Your task to perform on an android device: Do I have any events today? Image 0: 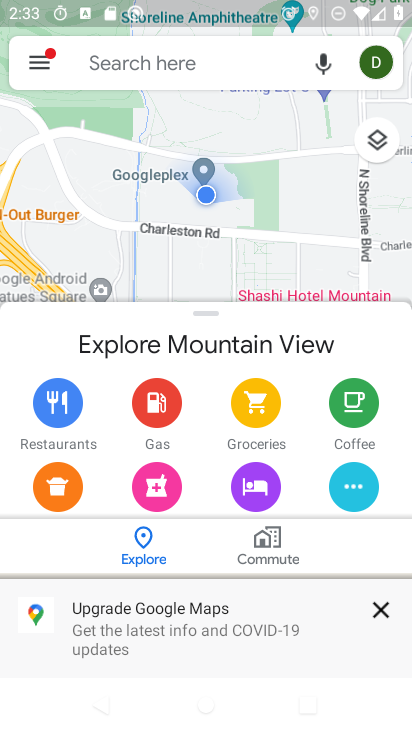
Step 0: press home button
Your task to perform on an android device: Do I have any events today? Image 1: 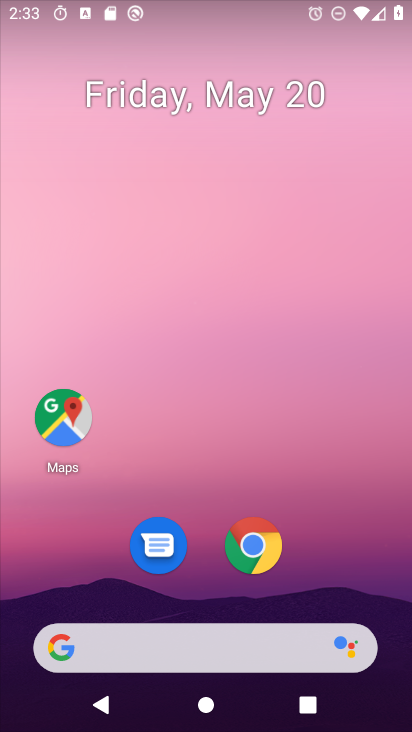
Step 1: drag from (181, 657) to (268, 2)
Your task to perform on an android device: Do I have any events today? Image 2: 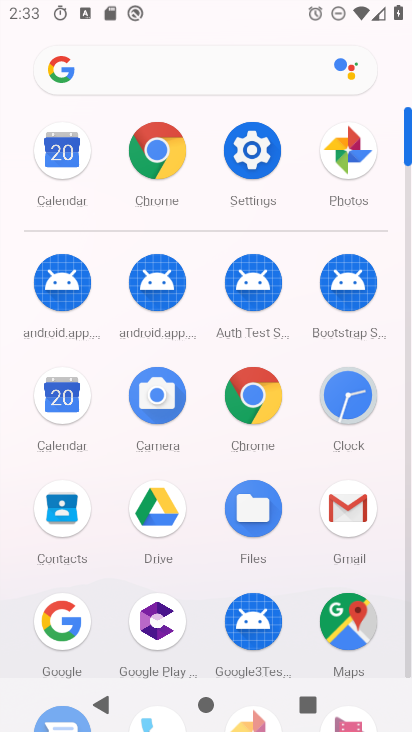
Step 2: click (59, 402)
Your task to perform on an android device: Do I have any events today? Image 3: 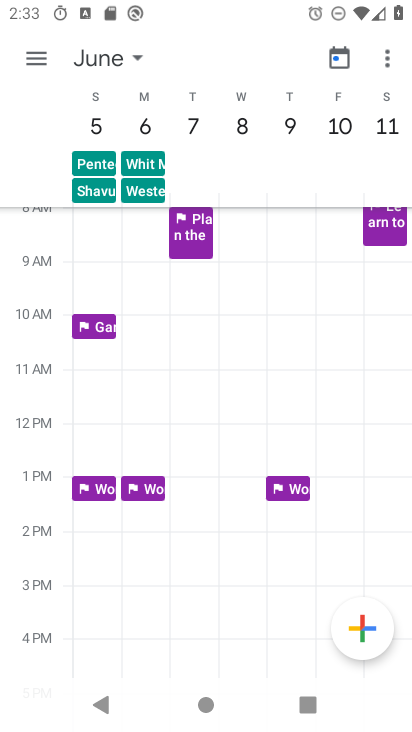
Step 3: click (137, 52)
Your task to perform on an android device: Do I have any events today? Image 4: 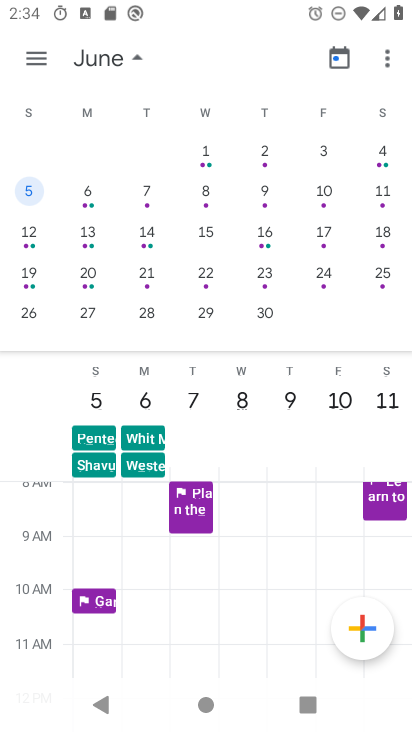
Step 4: drag from (32, 237) to (410, 387)
Your task to perform on an android device: Do I have any events today? Image 5: 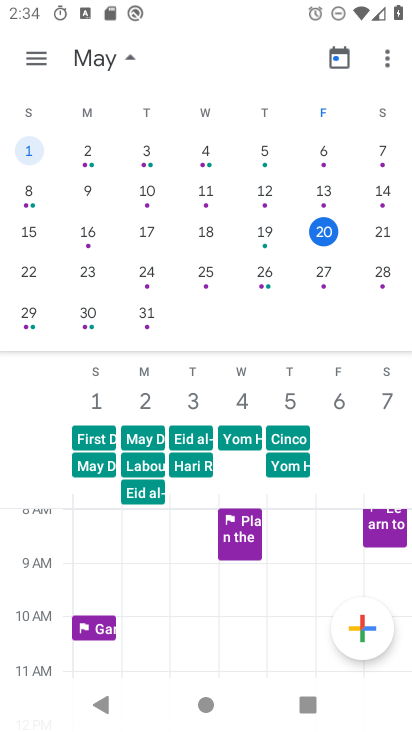
Step 5: click (11, 239)
Your task to perform on an android device: Do I have any events today? Image 6: 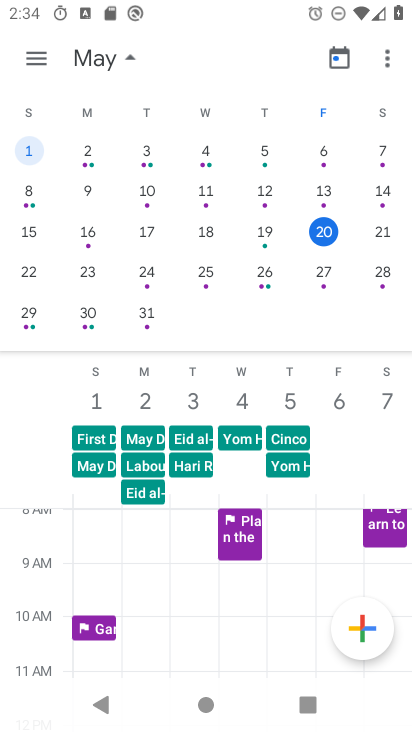
Step 6: click (307, 229)
Your task to perform on an android device: Do I have any events today? Image 7: 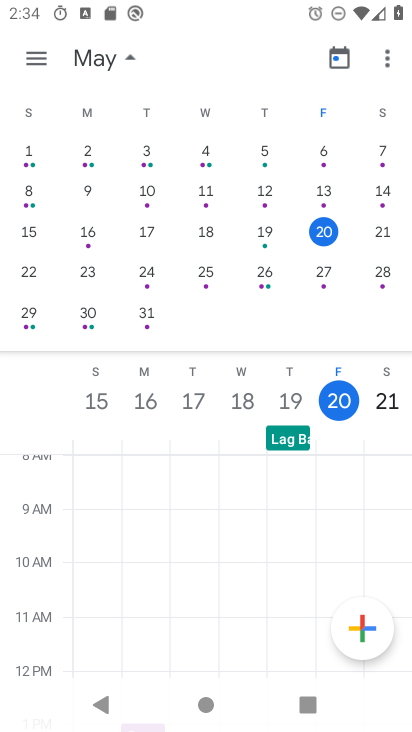
Step 7: task complete